Your task to perform on an android device: Show me popular videos on Youtube Image 0: 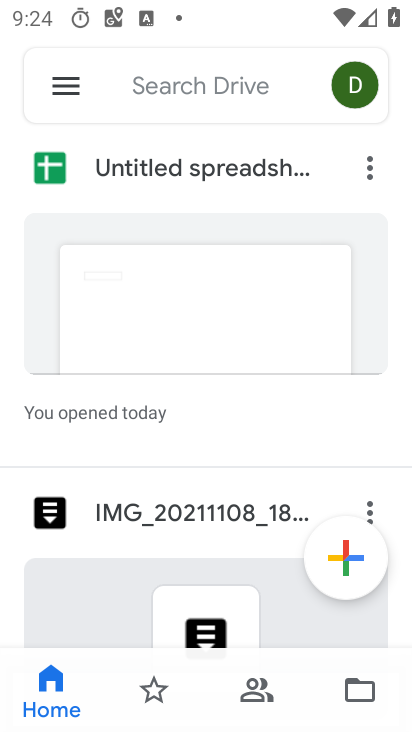
Step 0: press home button
Your task to perform on an android device: Show me popular videos on Youtube Image 1: 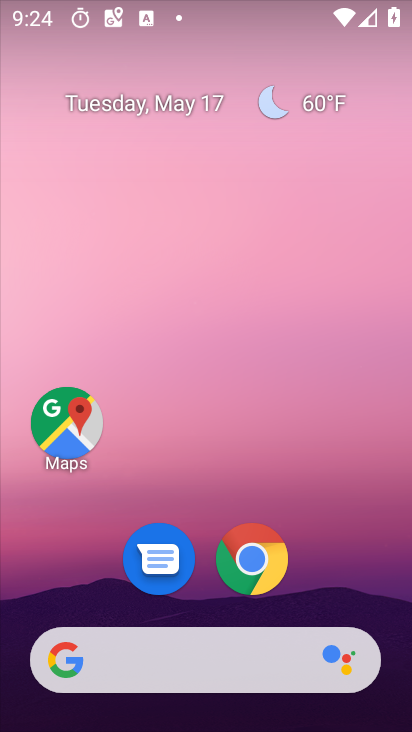
Step 1: drag from (224, 607) to (225, 197)
Your task to perform on an android device: Show me popular videos on Youtube Image 2: 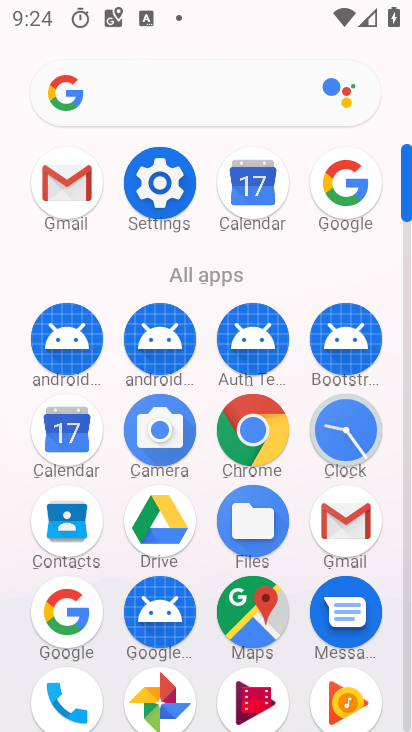
Step 2: drag from (252, 421) to (271, 331)
Your task to perform on an android device: Show me popular videos on Youtube Image 3: 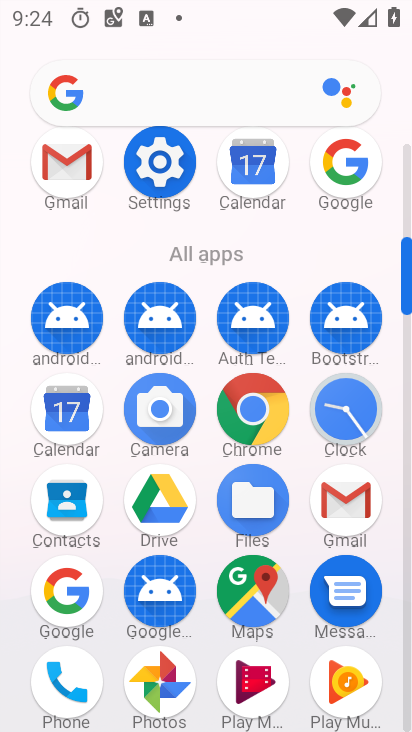
Step 3: drag from (265, 386) to (267, 322)
Your task to perform on an android device: Show me popular videos on Youtube Image 4: 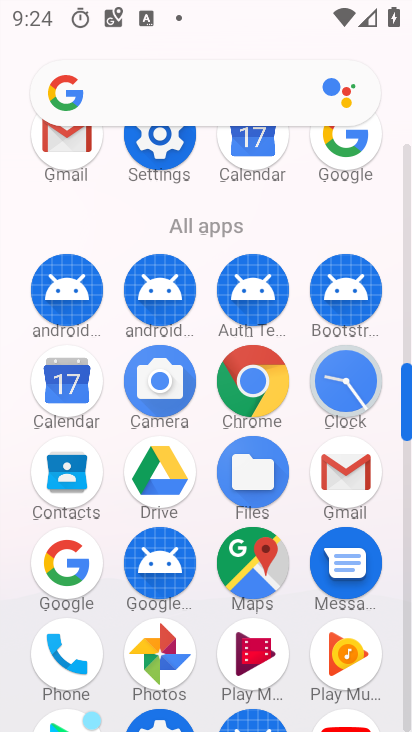
Step 4: drag from (230, 605) to (279, 170)
Your task to perform on an android device: Show me popular videos on Youtube Image 5: 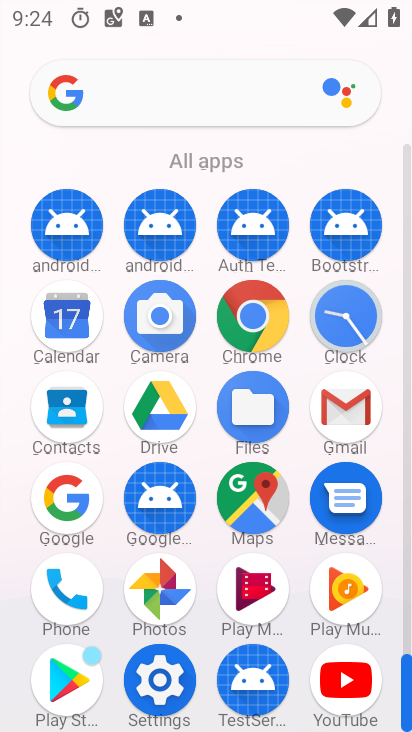
Step 5: click (355, 678)
Your task to perform on an android device: Show me popular videos on Youtube Image 6: 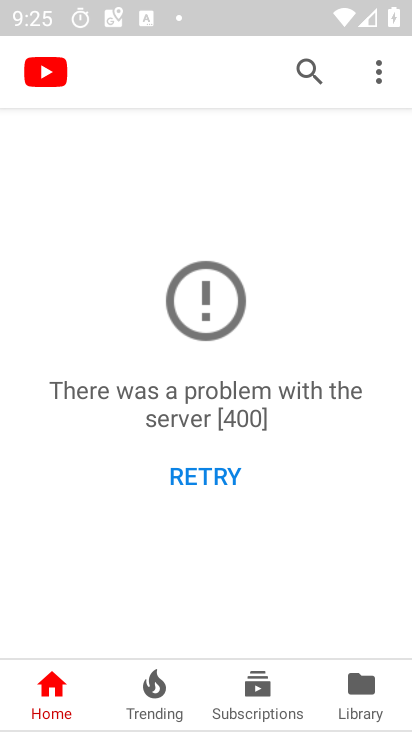
Step 6: click (368, 703)
Your task to perform on an android device: Show me popular videos on Youtube Image 7: 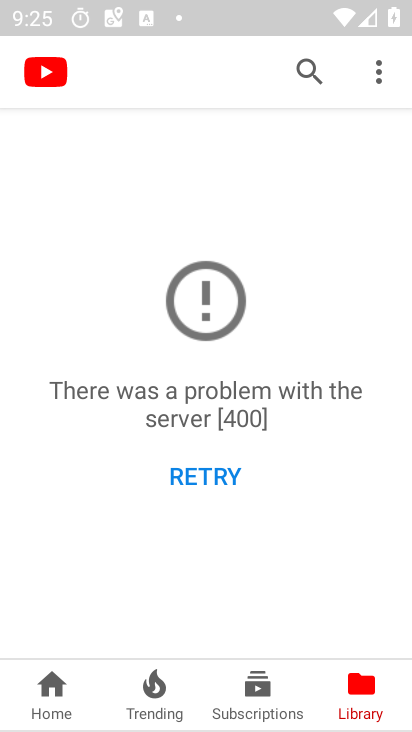
Step 7: click (57, 704)
Your task to perform on an android device: Show me popular videos on Youtube Image 8: 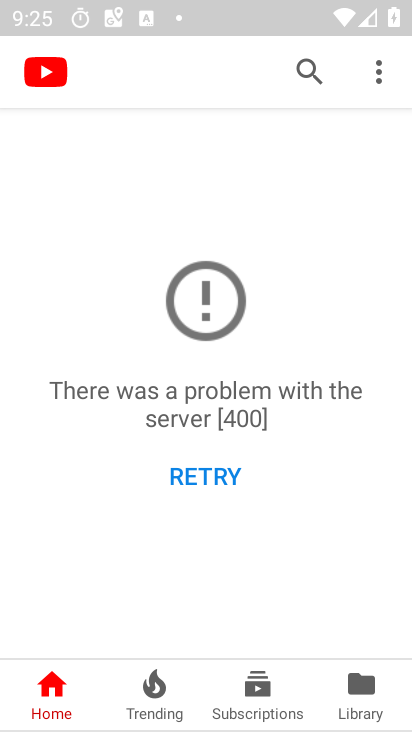
Step 8: task complete